Your task to perform on an android device: Open Yahoo.com Image 0: 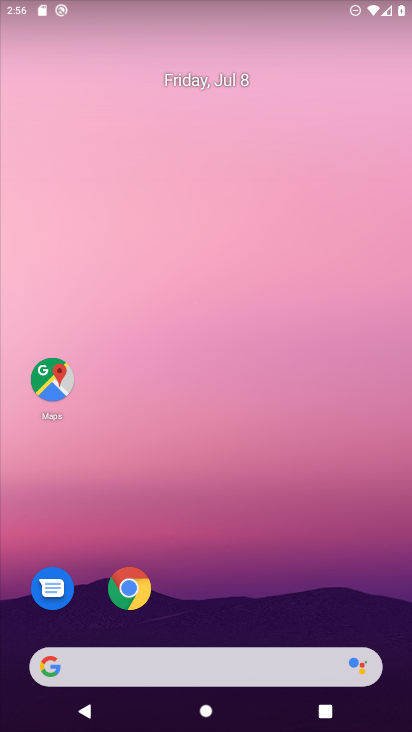
Step 0: click (128, 593)
Your task to perform on an android device: Open Yahoo.com Image 1: 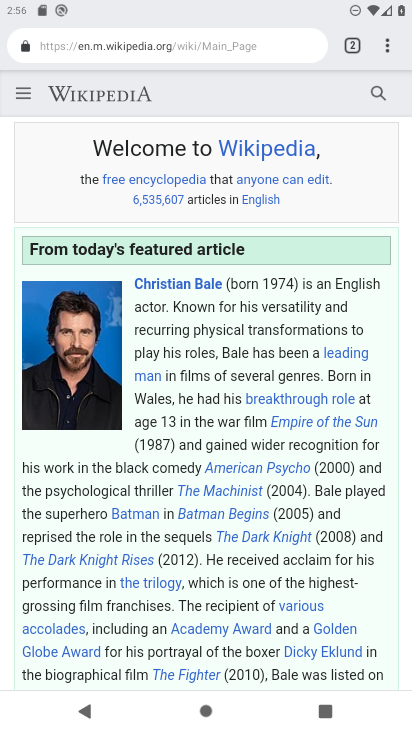
Step 1: click (128, 593)
Your task to perform on an android device: Open Yahoo.com Image 2: 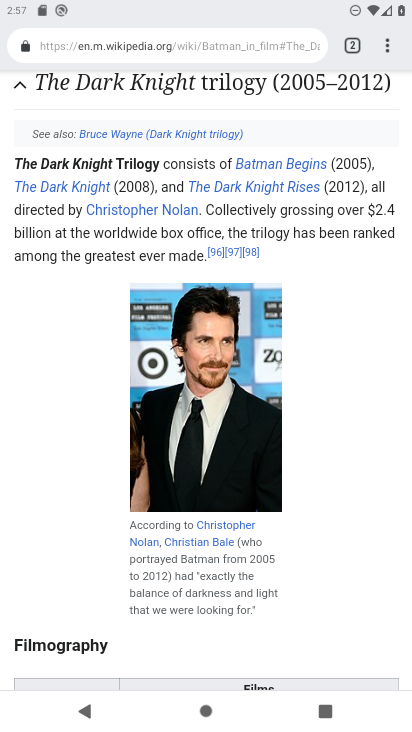
Step 2: press back button
Your task to perform on an android device: Open Yahoo.com Image 3: 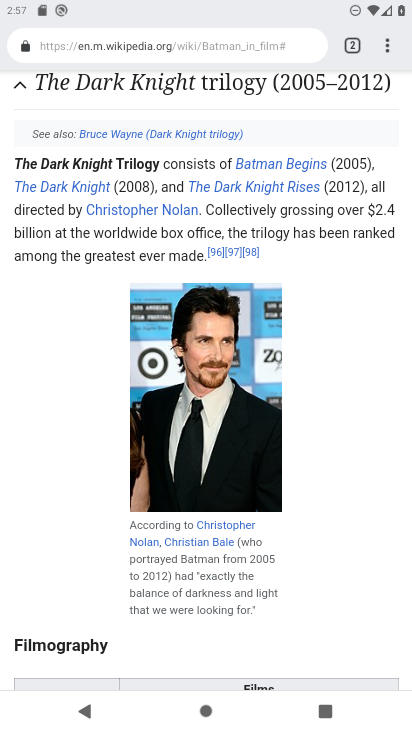
Step 3: press back button
Your task to perform on an android device: Open Yahoo.com Image 4: 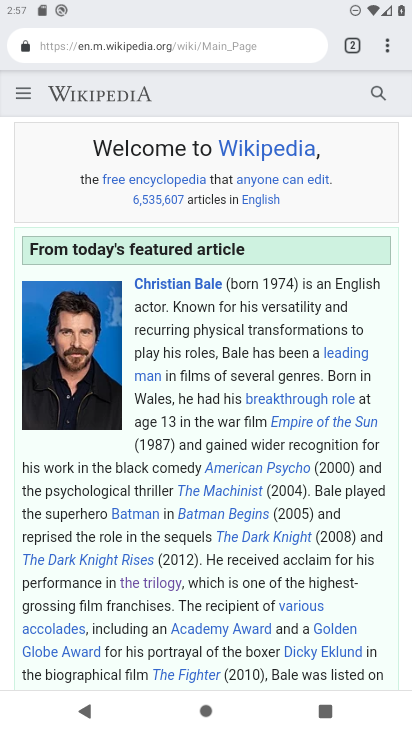
Step 4: press back button
Your task to perform on an android device: Open Yahoo.com Image 5: 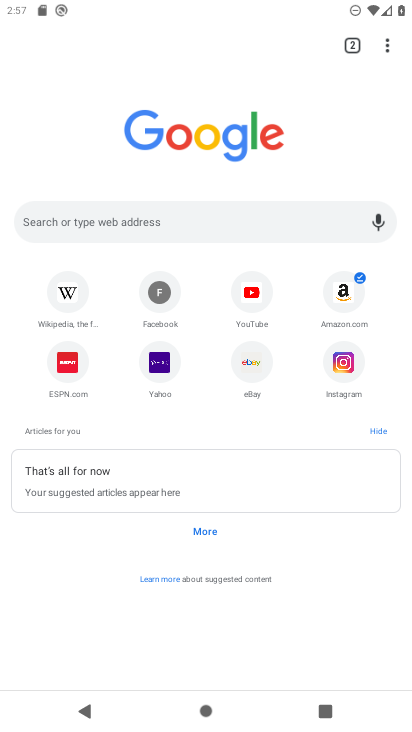
Step 5: click (161, 358)
Your task to perform on an android device: Open Yahoo.com Image 6: 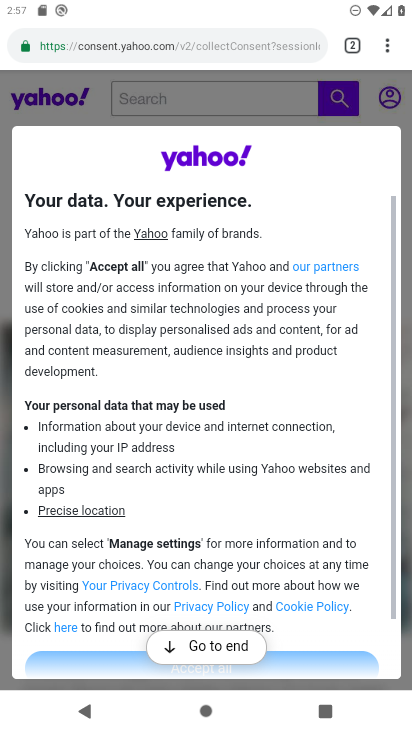
Step 6: task complete